Your task to perform on an android device: set the stopwatch Image 0: 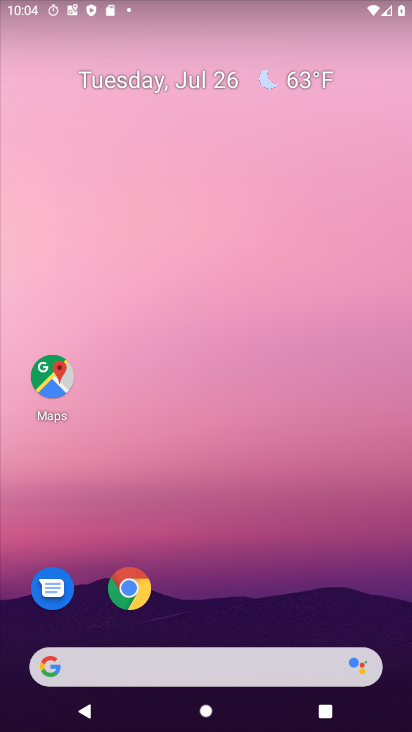
Step 0: drag from (250, 621) to (313, 61)
Your task to perform on an android device: set the stopwatch Image 1: 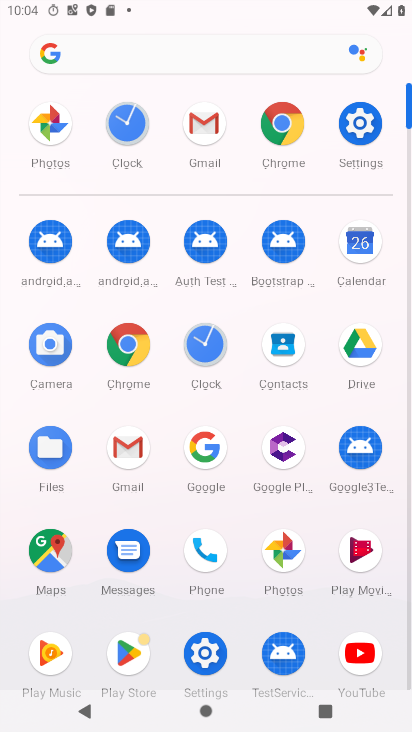
Step 1: click (205, 358)
Your task to perform on an android device: set the stopwatch Image 2: 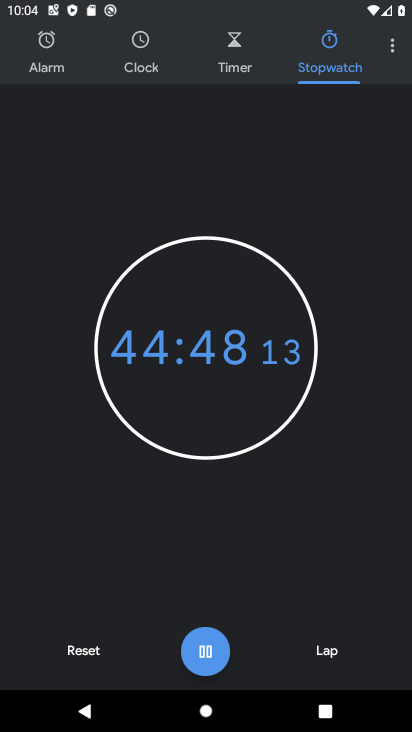
Step 2: task complete